Your task to perform on an android device: Open calendar and show me the first week of next month Image 0: 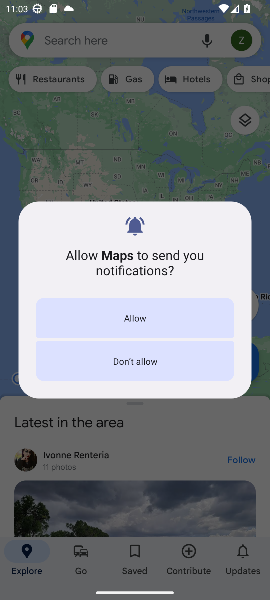
Step 0: press home button
Your task to perform on an android device: Open calendar and show me the first week of next month Image 1: 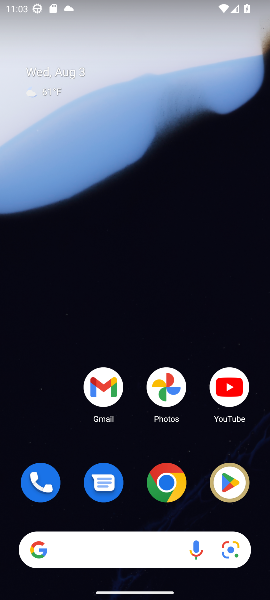
Step 1: task complete